Your task to perform on an android device: Turn on the flashlight Image 0: 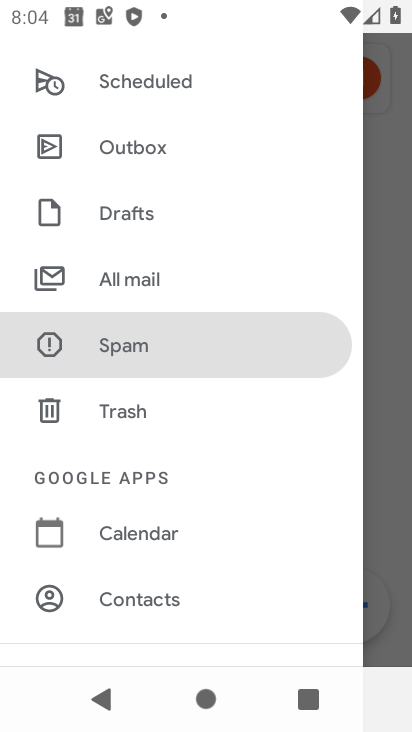
Step 0: press home button
Your task to perform on an android device: Turn on the flashlight Image 1: 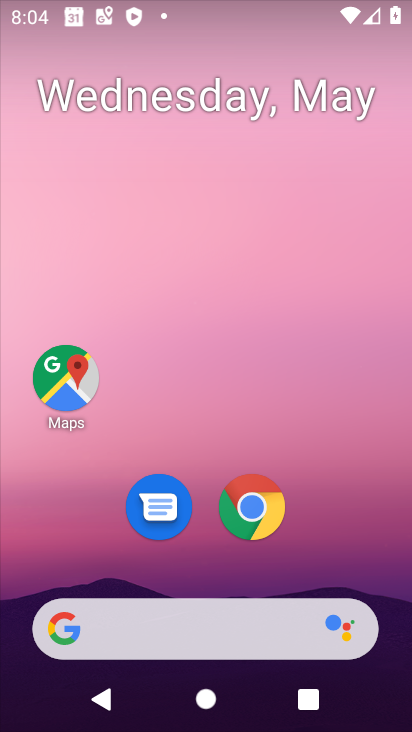
Step 1: drag from (326, 457) to (290, 175)
Your task to perform on an android device: Turn on the flashlight Image 2: 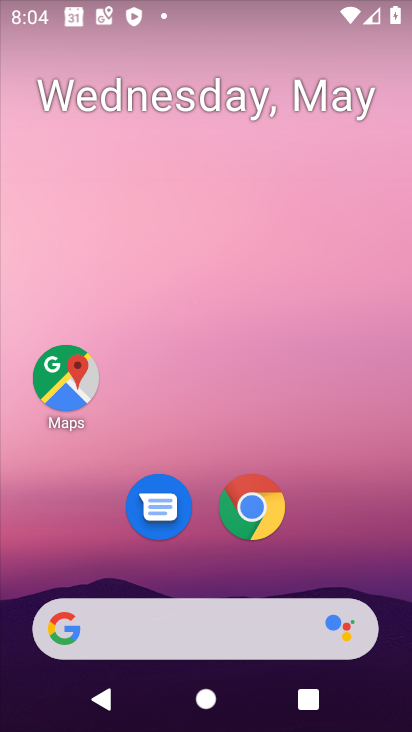
Step 2: drag from (330, 538) to (340, 145)
Your task to perform on an android device: Turn on the flashlight Image 3: 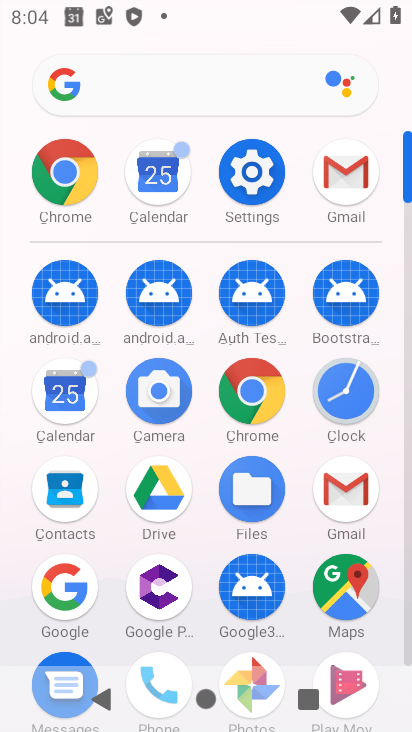
Step 3: click (255, 170)
Your task to perform on an android device: Turn on the flashlight Image 4: 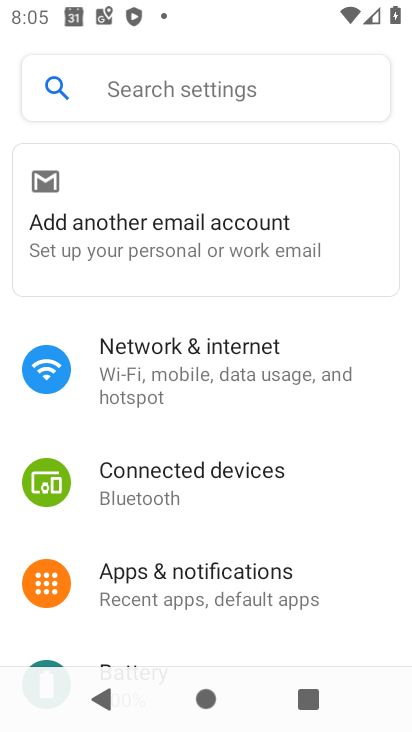
Step 4: task complete